Your task to perform on an android device: Go to display settings Image 0: 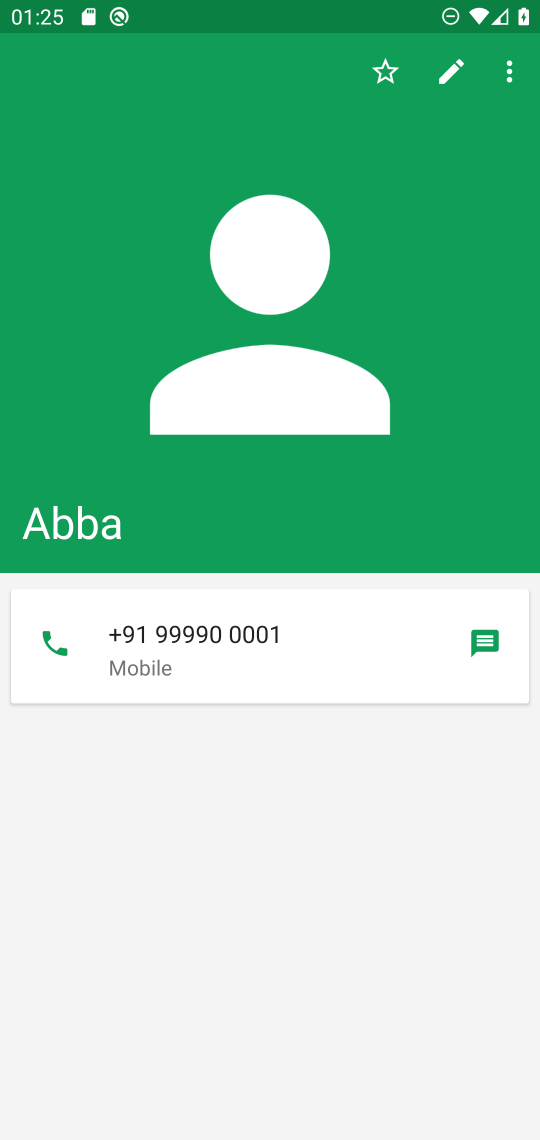
Step 0: press home button
Your task to perform on an android device: Go to display settings Image 1: 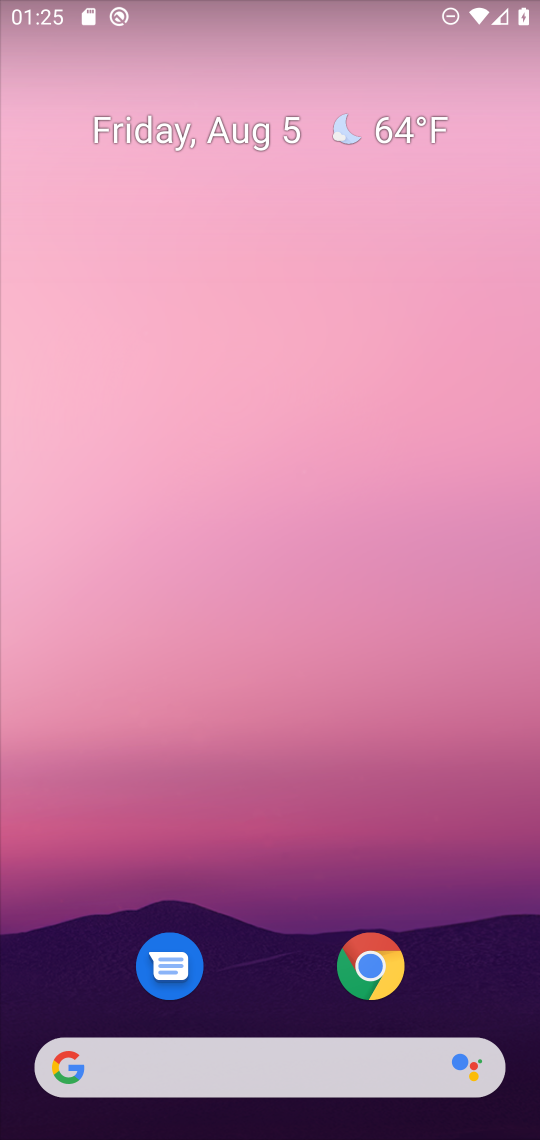
Step 1: drag from (262, 832) to (367, 0)
Your task to perform on an android device: Go to display settings Image 2: 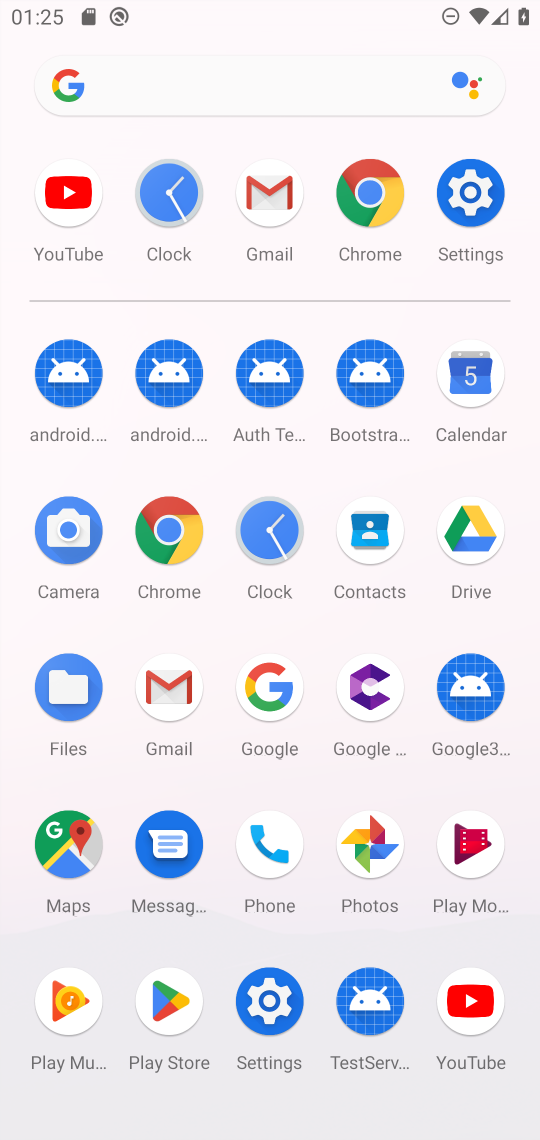
Step 2: click (483, 191)
Your task to perform on an android device: Go to display settings Image 3: 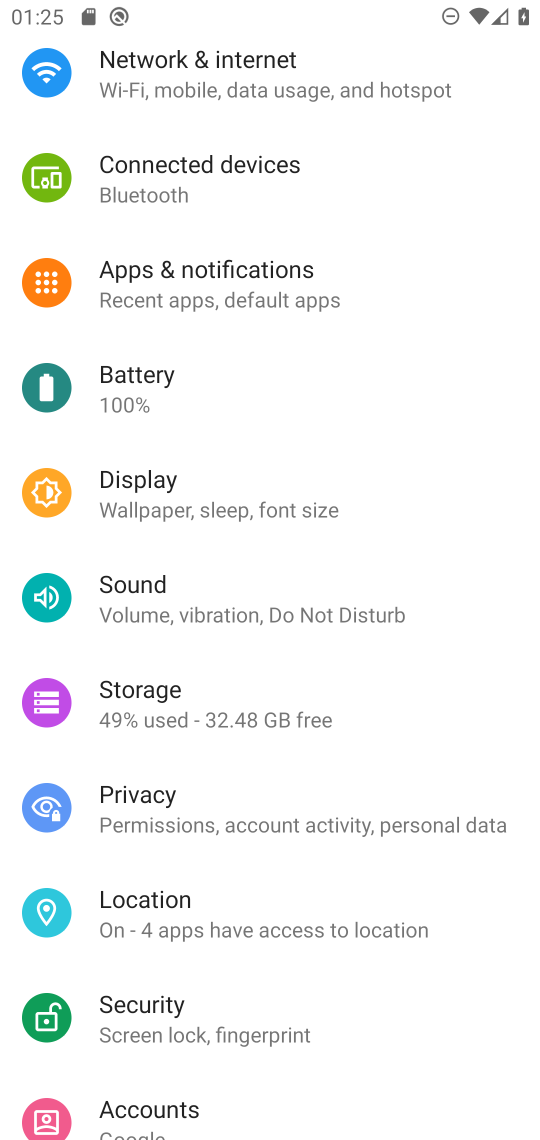
Step 3: click (196, 495)
Your task to perform on an android device: Go to display settings Image 4: 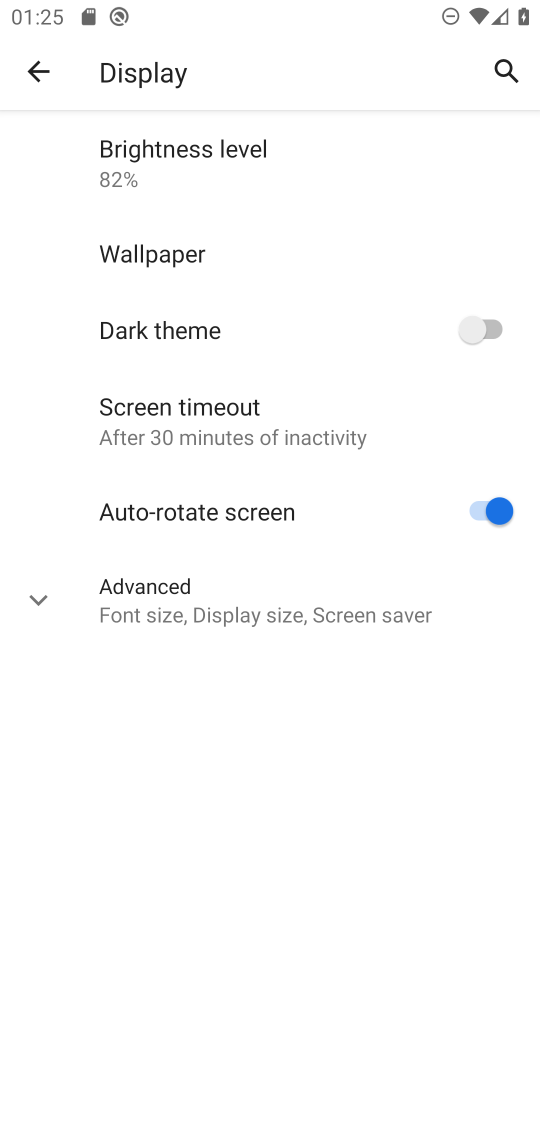
Step 4: task complete